Your task to perform on an android device: Go to location settings Image 0: 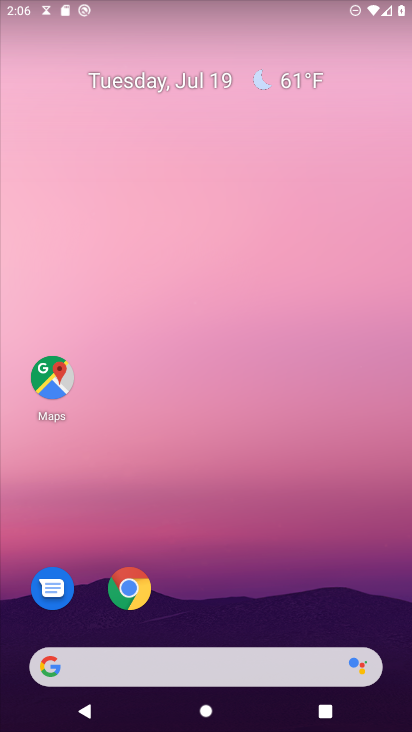
Step 0: drag from (298, 672) to (271, 193)
Your task to perform on an android device: Go to location settings Image 1: 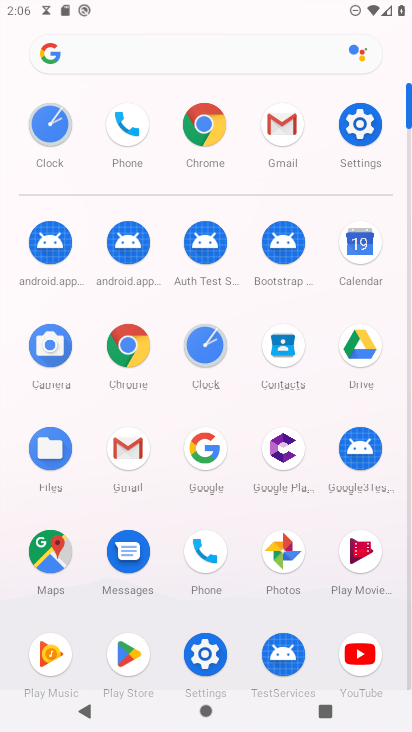
Step 1: click (50, 563)
Your task to perform on an android device: Go to location settings Image 2: 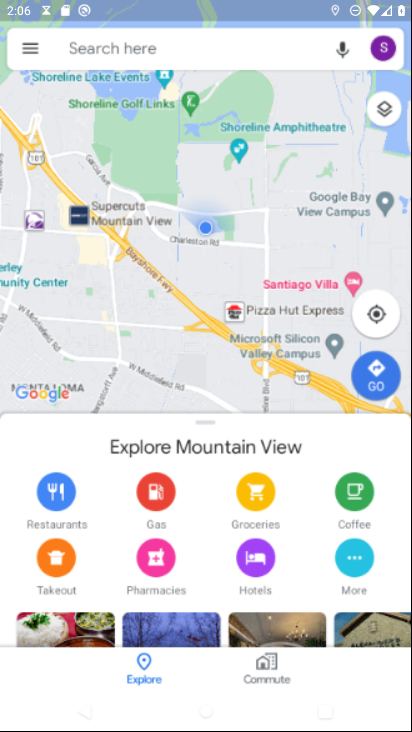
Step 2: press home button
Your task to perform on an android device: Go to location settings Image 3: 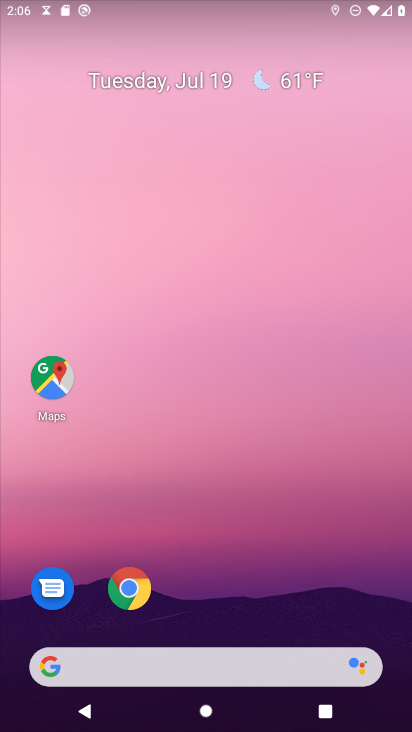
Step 3: drag from (271, 566) to (253, 188)
Your task to perform on an android device: Go to location settings Image 4: 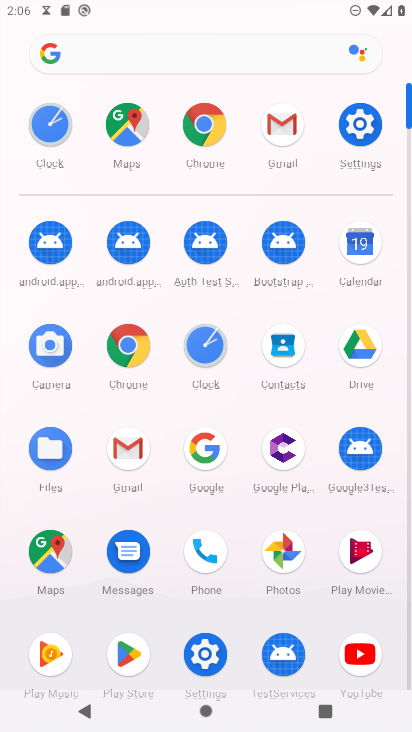
Step 4: click (208, 663)
Your task to perform on an android device: Go to location settings Image 5: 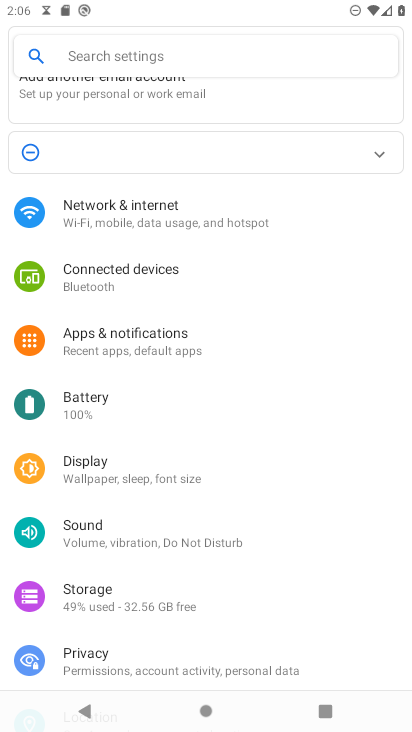
Step 5: drag from (139, 664) to (145, 603)
Your task to perform on an android device: Go to location settings Image 6: 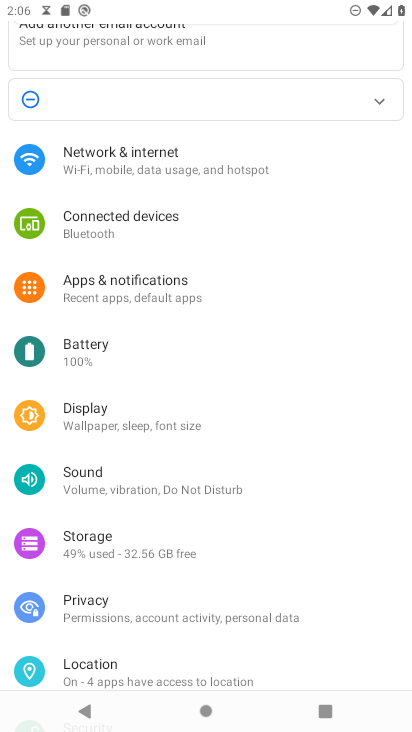
Step 6: click (107, 660)
Your task to perform on an android device: Go to location settings Image 7: 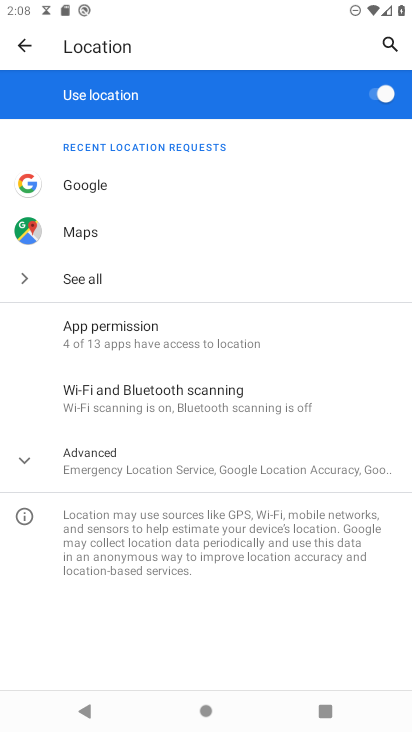
Step 7: task complete